Your task to perform on an android device: See recent photos Image 0: 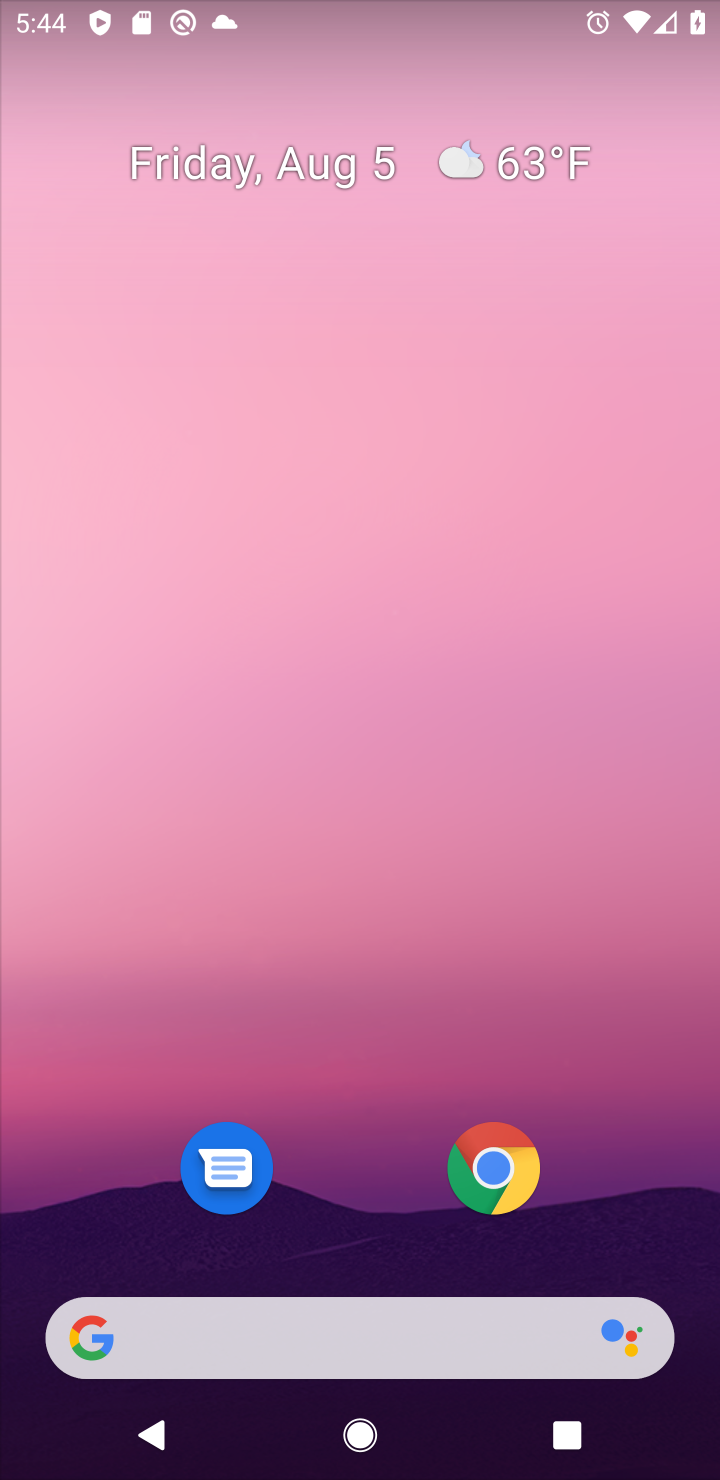
Step 0: press home button
Your task to perform on an android device: See recent photos Image 1: 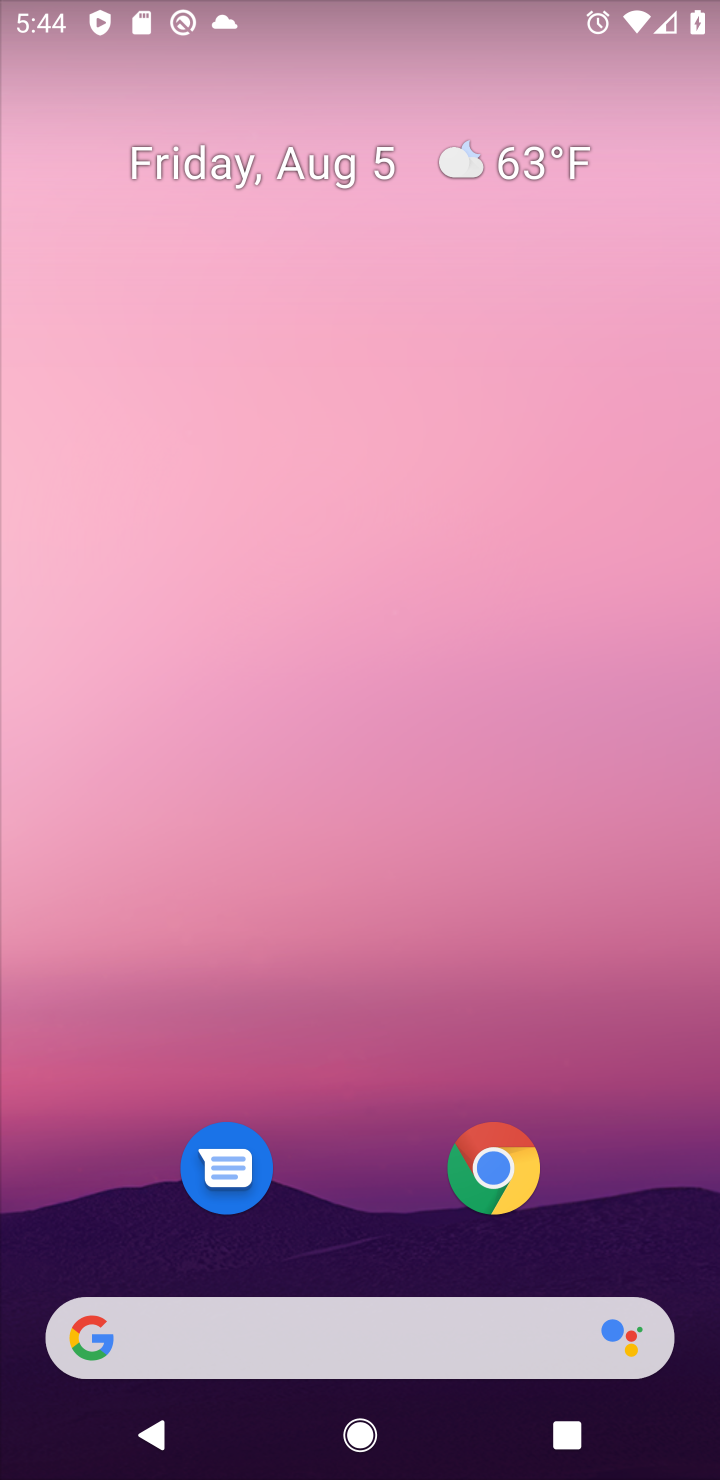
Step 1: drag from (430, 1014) to (468, 257)
Your task to perform on an android device: See recent photos Image 2: 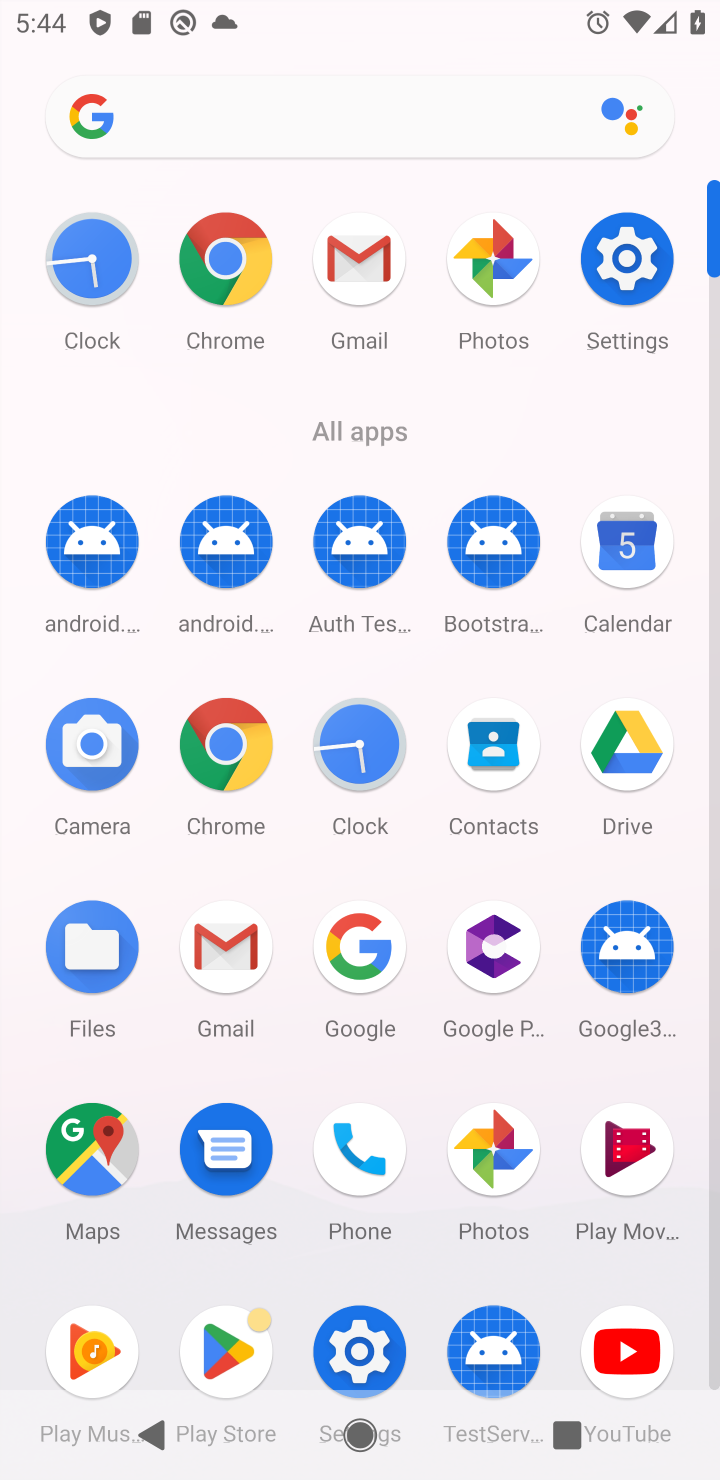
Step 2: click (487, 265)
Your task to perform on an android device: See recent photos Image 3: 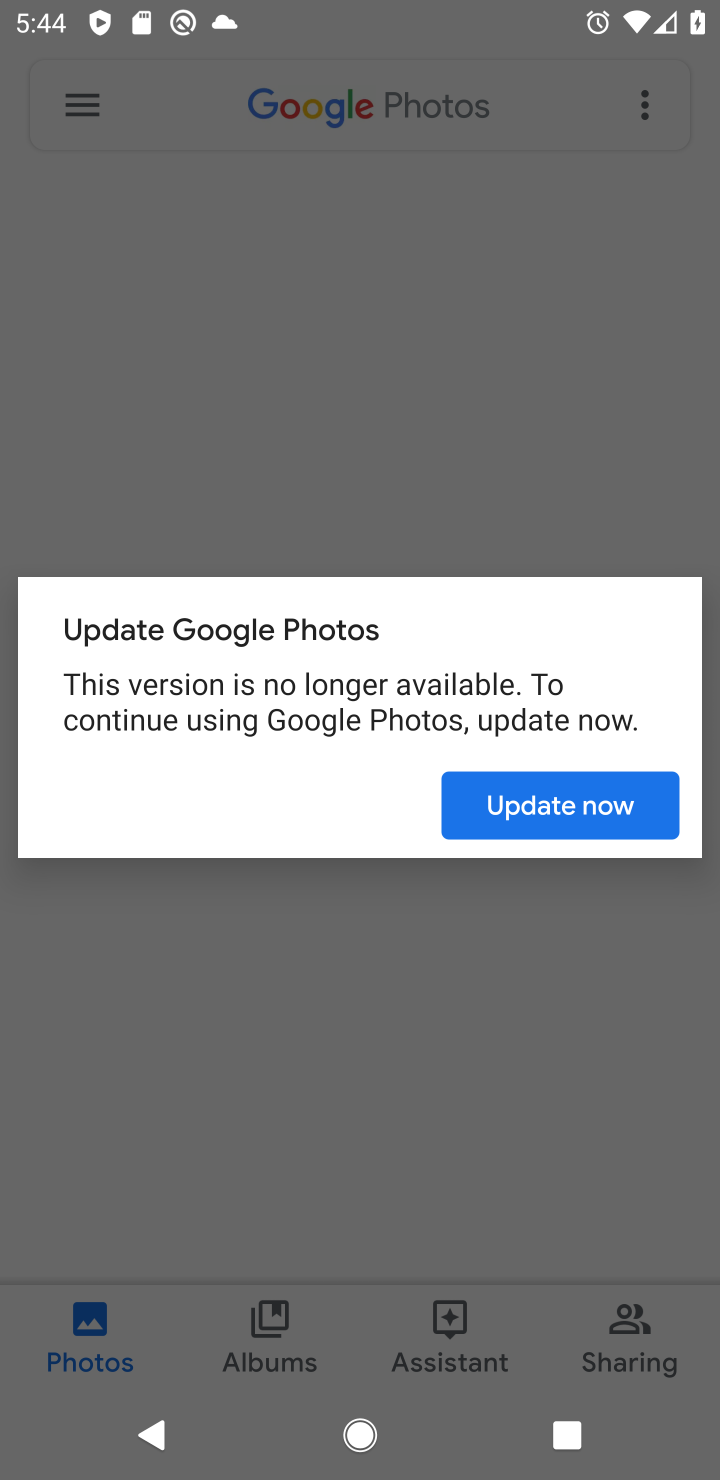
Step 3: click (562, 811)
Your task to perform on an android device: See recent photos Image 4: 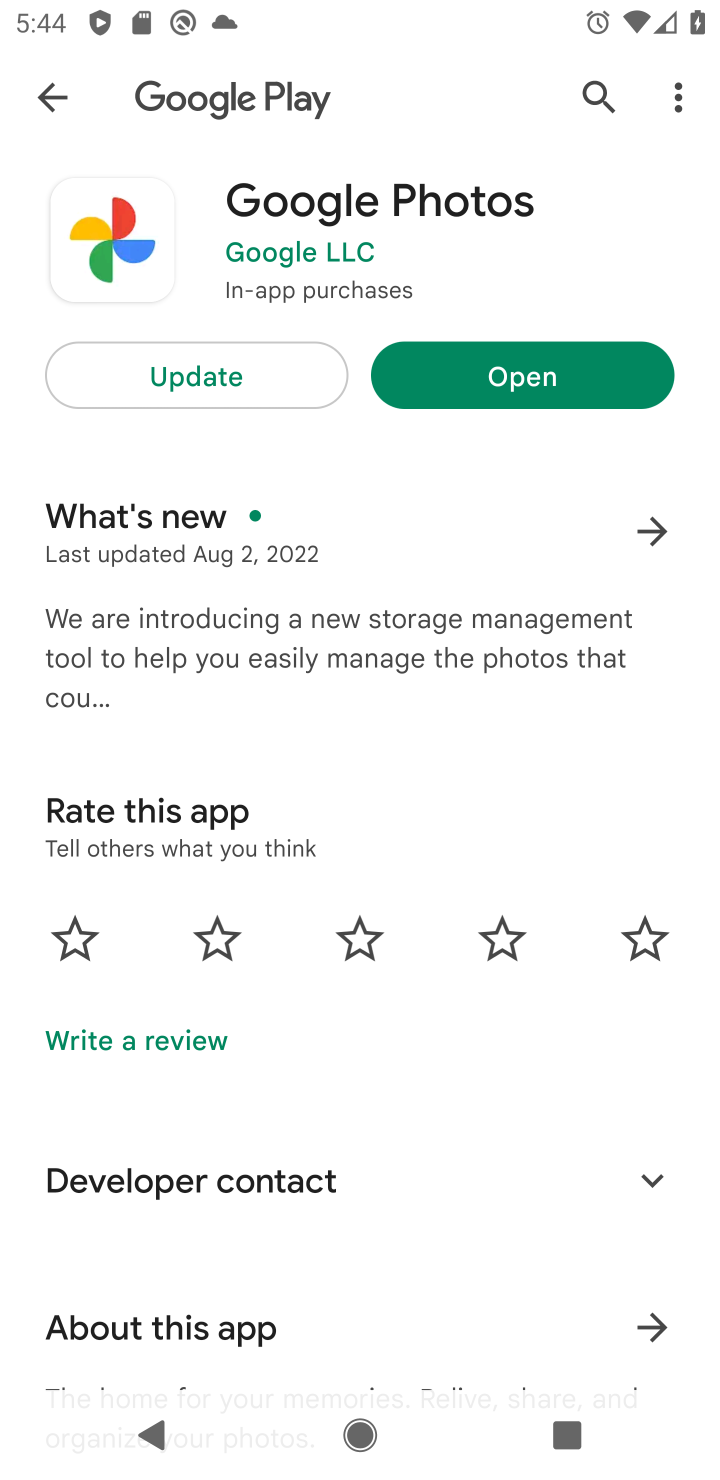
Step 4: click (140, 386)
Your task to perform on an android device: See recent photos Image 5: 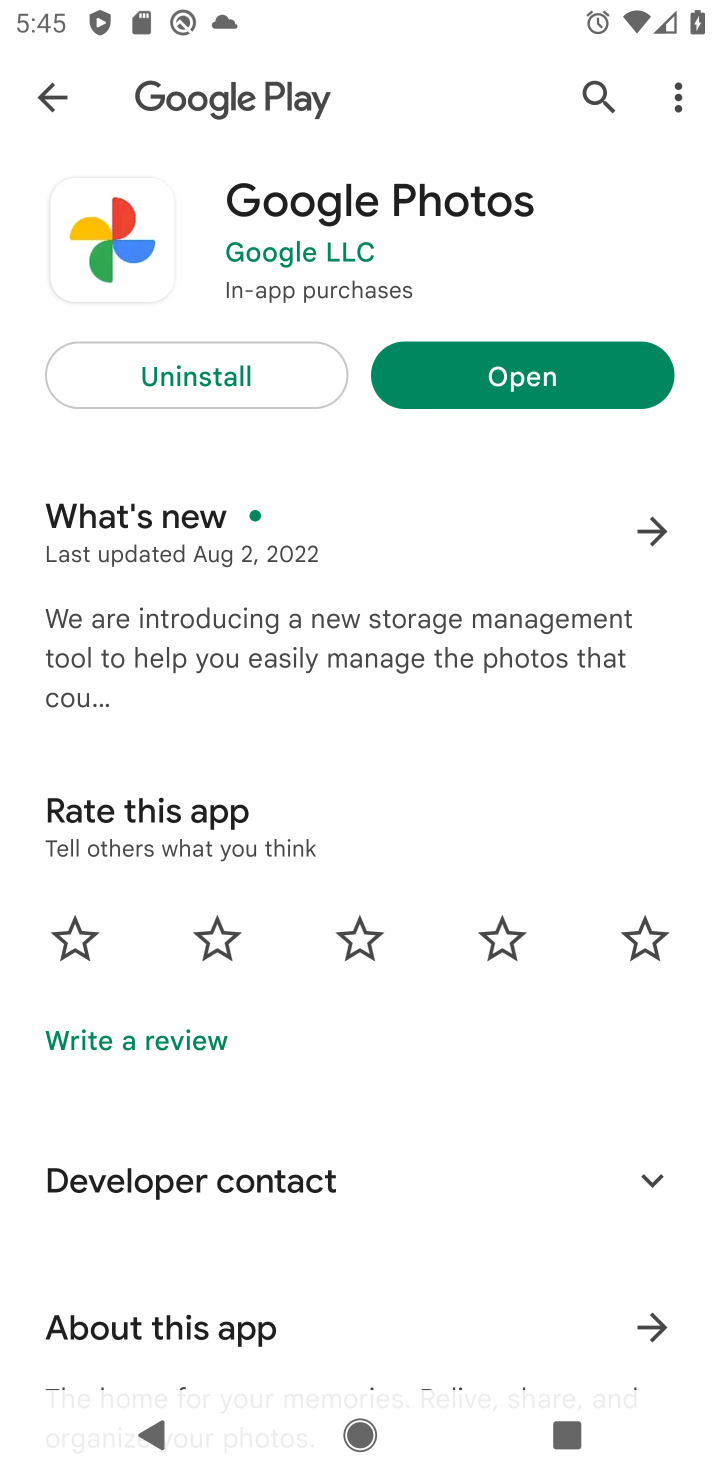
Step 5: click (437, 369)
Your task to perform on an android device: See recent photos Image 6: 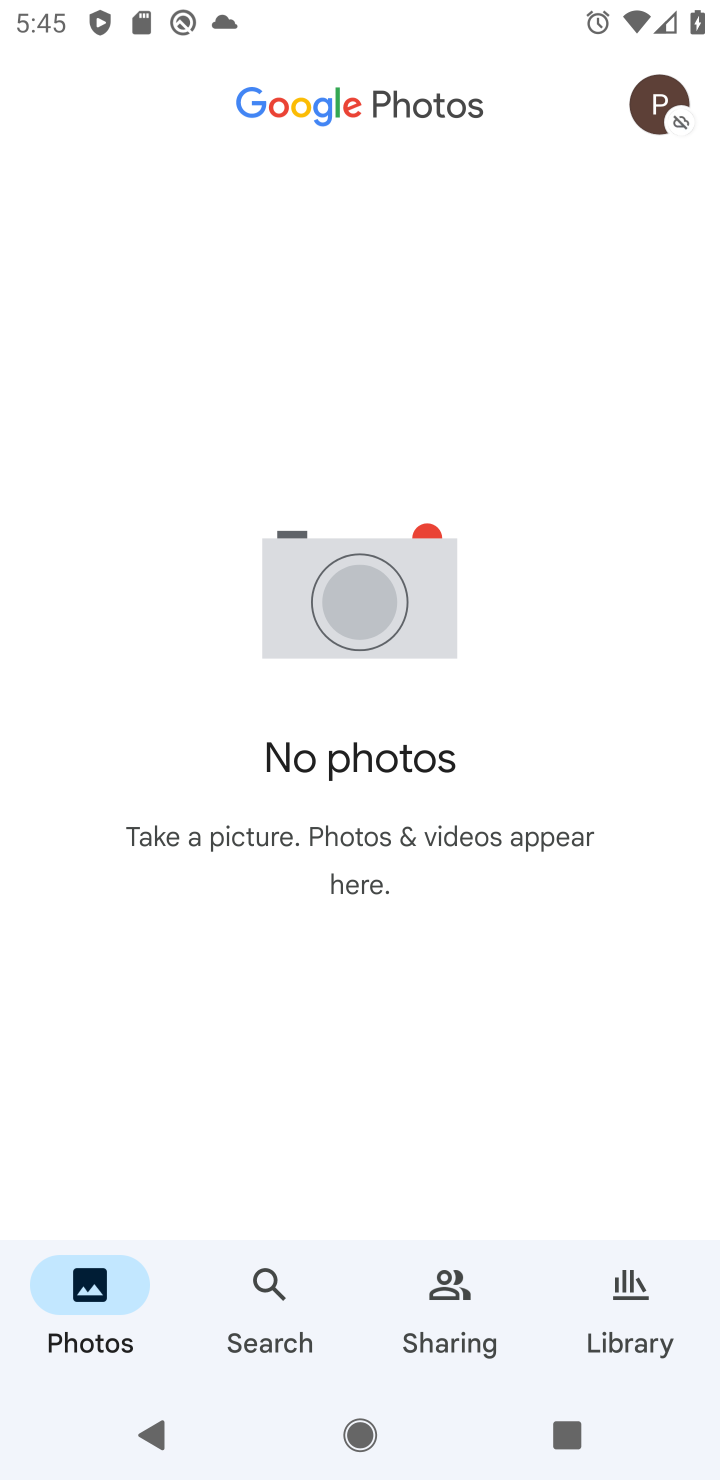
Step 6: task complete